Your task to perform on an android device: What's the weather? Image 0: 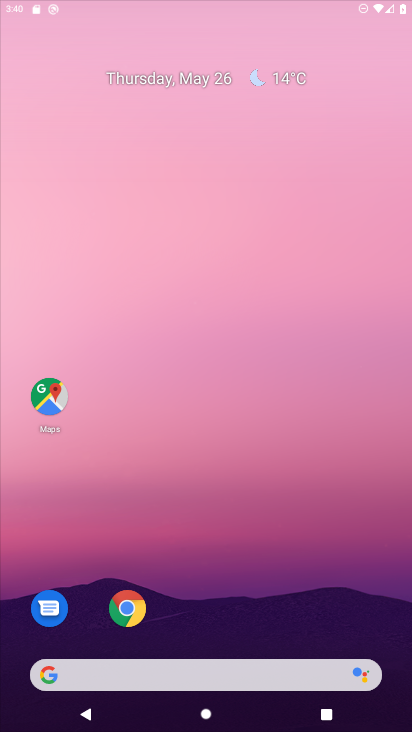
Step 0: drag from (270, 495) to (250, 101)
Your task to perform on an android device: What's the weather? Image 1: 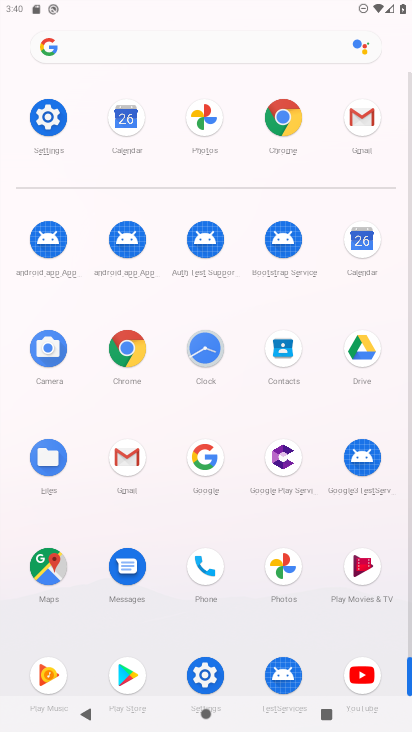
Step 1: click (37, 52)
Your task to perform on an android device: What's the weather? Image 2: 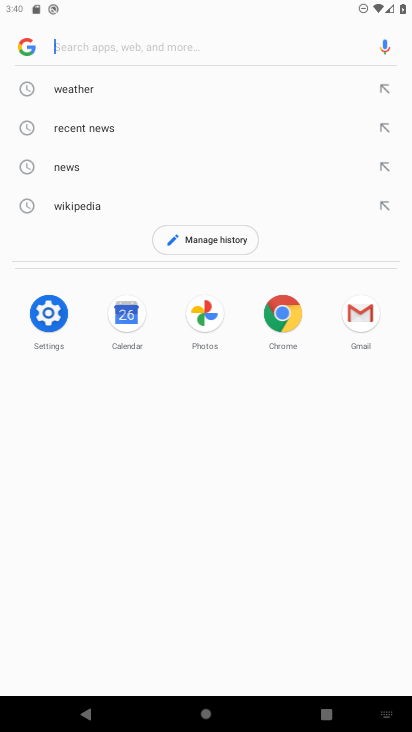
Step 2: click (37, 52)
Your task to perform on an android device: What's the weather? Image 3: 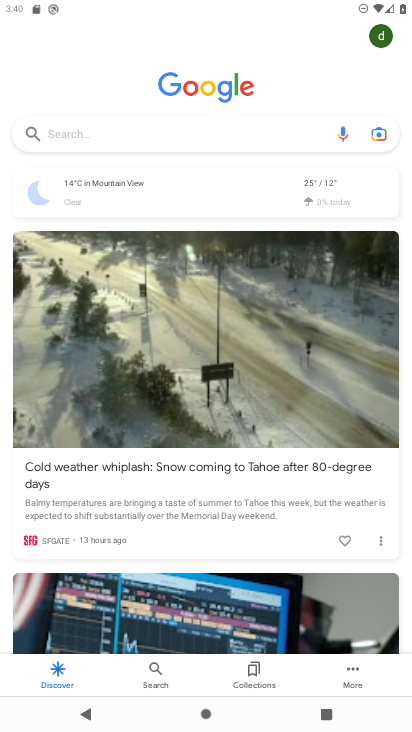
Step 3: click (194, 203)
Your task to perform on an android device: What's the weather? Image 4: 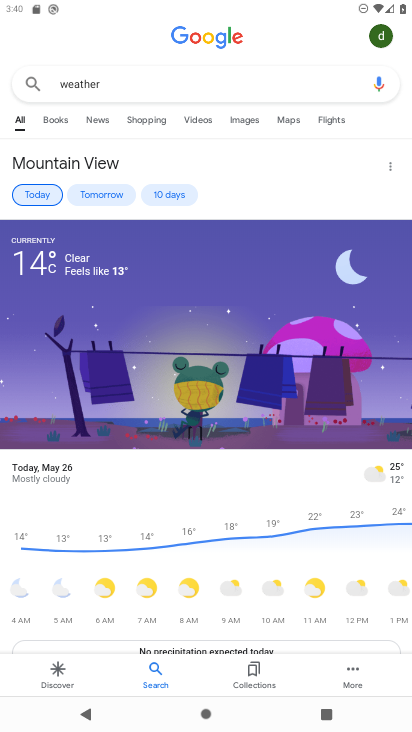
Step 4: task complete